Your task to perform on an android device: turn on showing notifications on the lock screen Image 0: 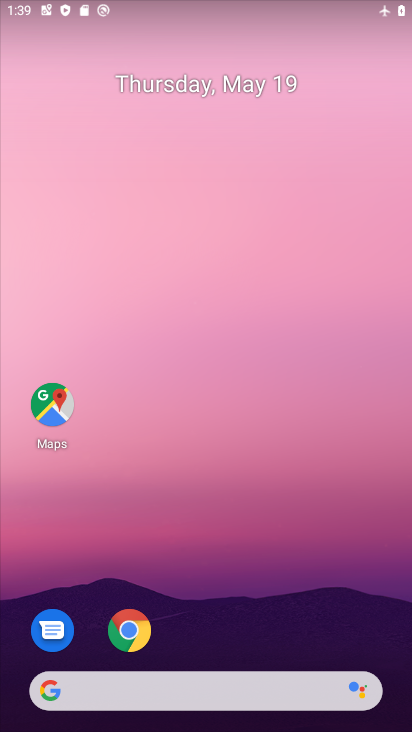
Step 0: drag from (219, 662) to (186, 66)
Your task to perform on an android device: turn on showing notifications on the lock screen Image 1: 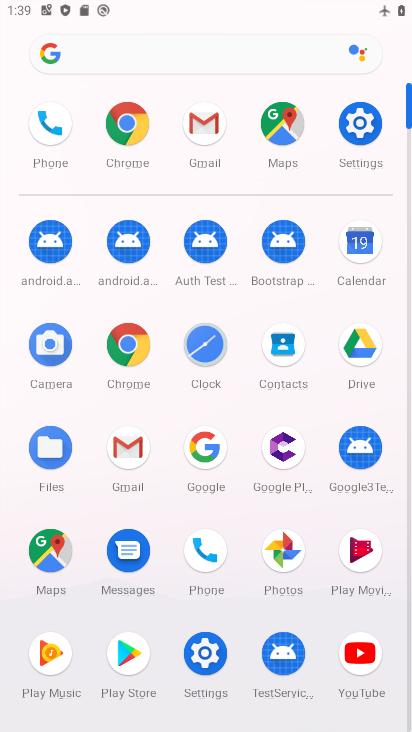
Step 1: click (353, 121)
Your task to perform on an android device: turn on showing notifications on the lock screen Image 2: 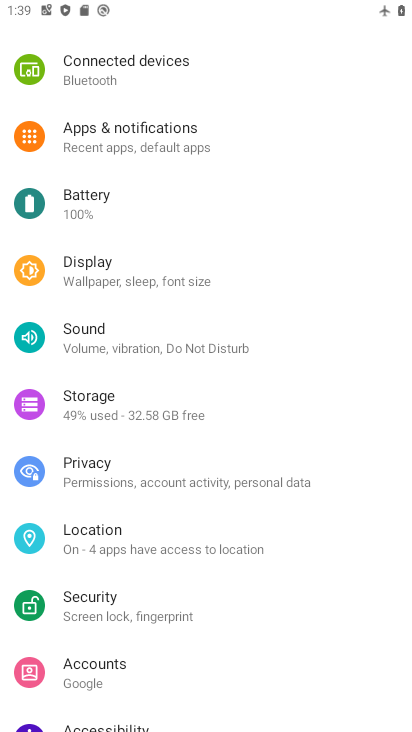
Step 2: click (180, 152)
Your task to perform on an android device: turn on showing notifications on the lock screen Image 3: 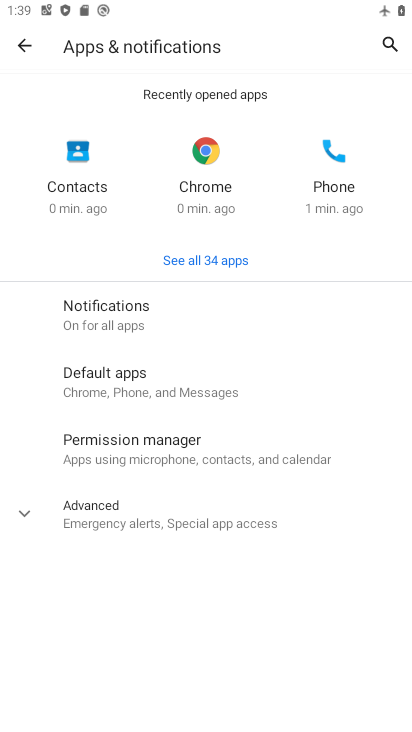
Step 3: click (150, 317)
Your task to perform on an android device: turn on showing notifications on the lock screen Image 4: 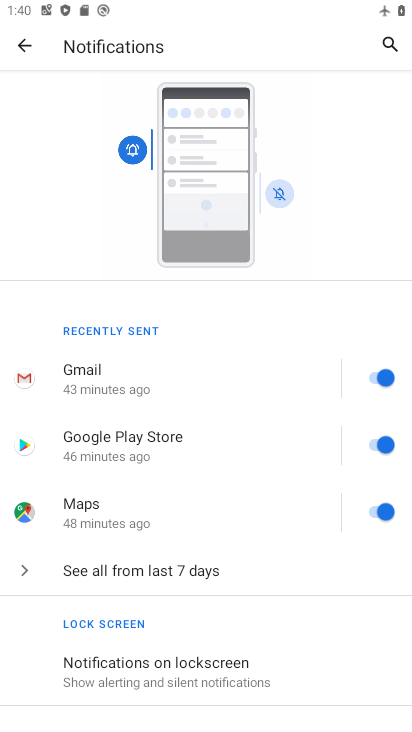
Step 4: click (225, 672)
Your task to perform on an android device: turn on showing notifications on the lock screen Image 5: 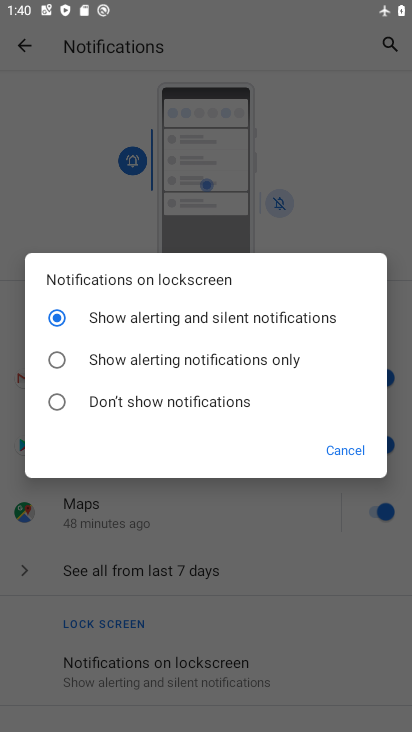
Step 5: click (150, 324)
Your task to perform on an android device: turn on showing notifications on the lock screen Image 6: 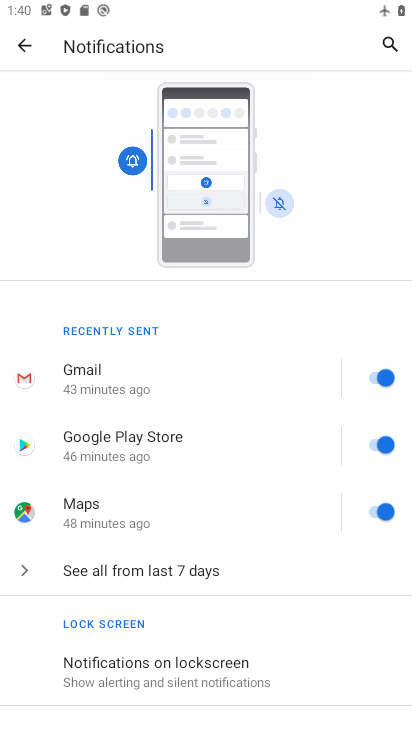
Step 6: task complete